Your task to perform on an android device: Go to battery settings Image 0: 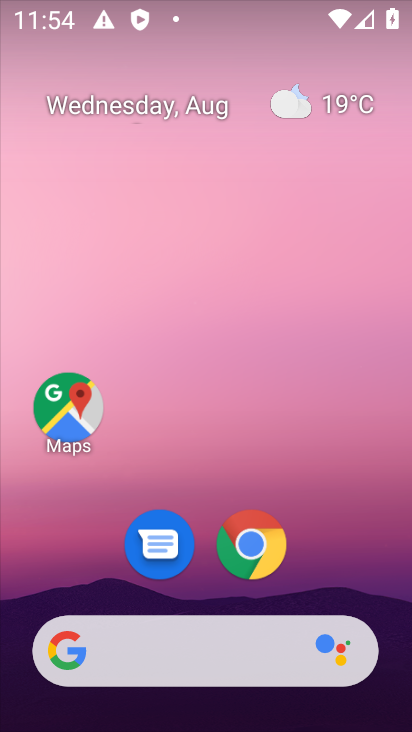
Step 0: drag from (380, 700) to (276, 126)
Your task to perform on an android device: Go to battery settings Image 1: 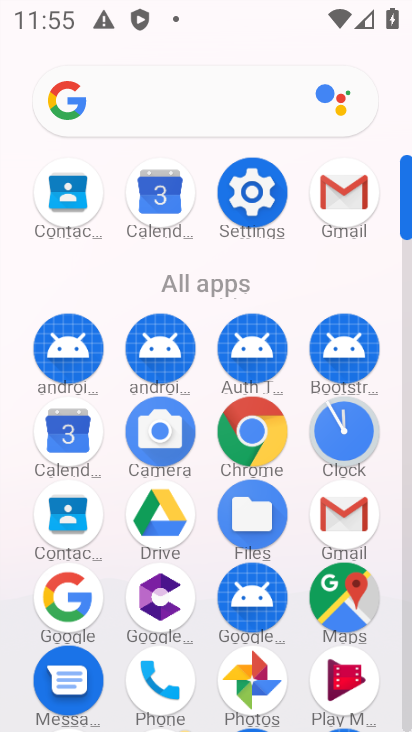
Step 1: click (244, 188)
Your task to perform on an android device: Go to battery settings Image 2: 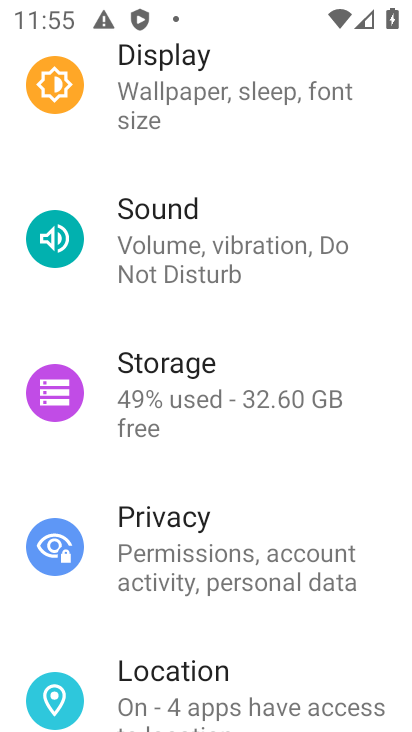
Step 2: drag from (265, 164) to (301, 547)
Your task to perform on an android device: Go to battery settings Image 3: 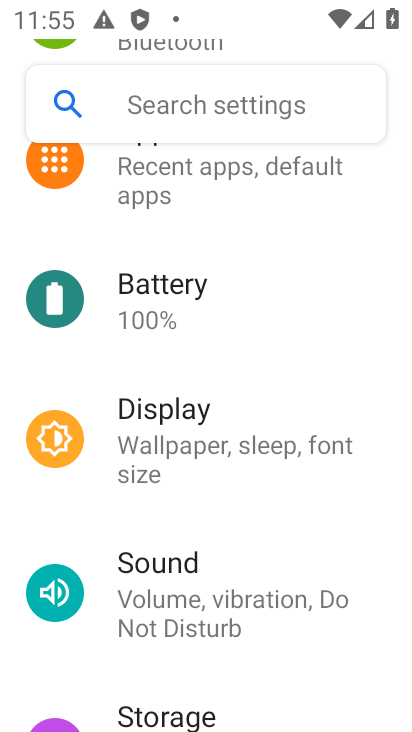
Step 3: click (148, 294)
Your task to perform on an android device: Go to battery settings Image 4: 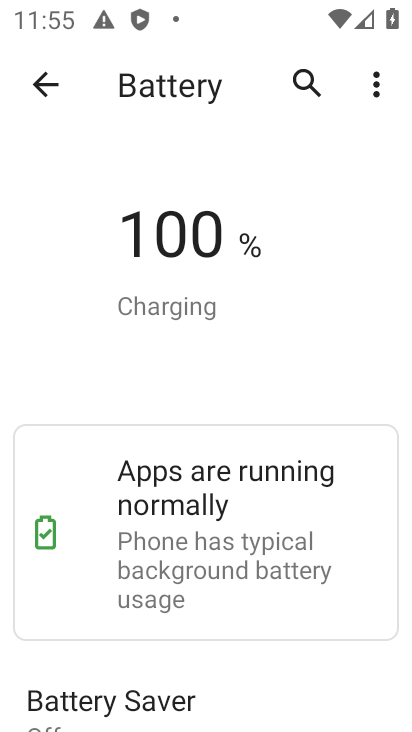
Step 4: task complete